Your task to perform on an android device: Toggle the flashlight Image 0: 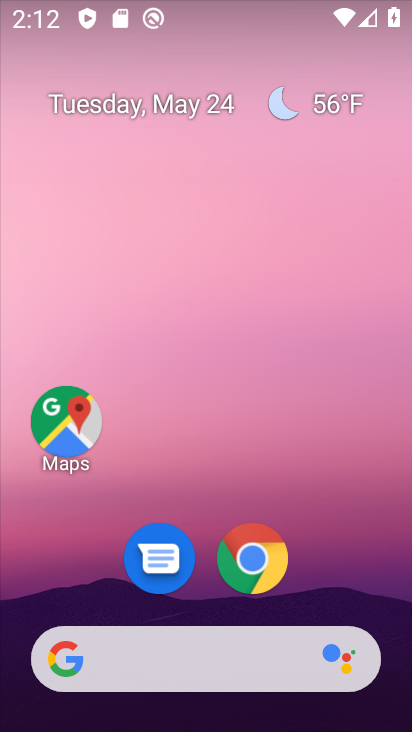
Step 0: drag from (317, 40) to (319, 601)
Your task to perform on an android device: Toggle the flashlight Image 1: 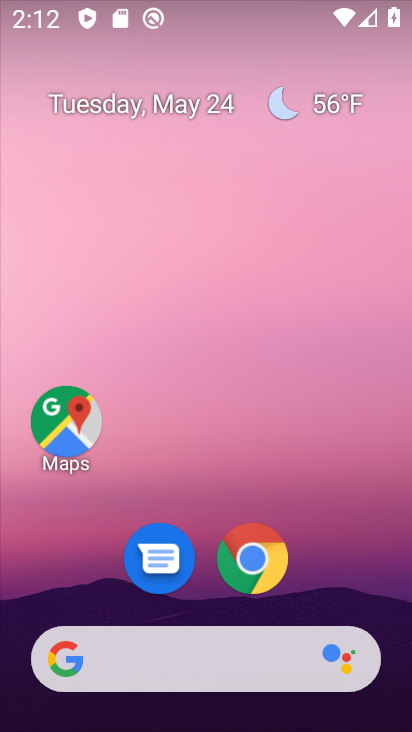
Step 1: task complete